Your task to perform on an android device: see tabs open on other devices in the chrome app Image 0: 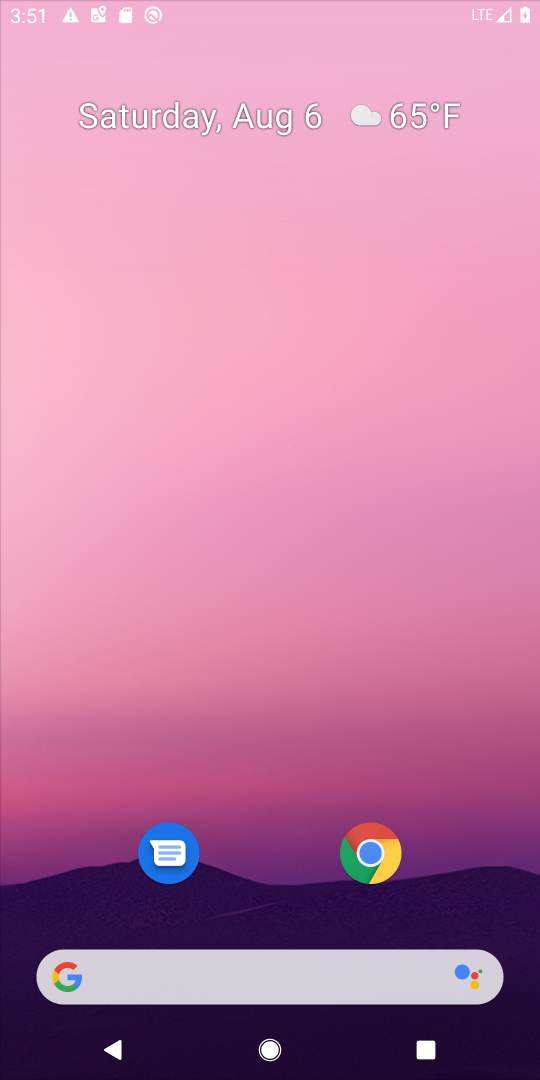
Step 0: press back button
Your task to perform on an android device: see tabs open on other devices in the chrome app Image 1: 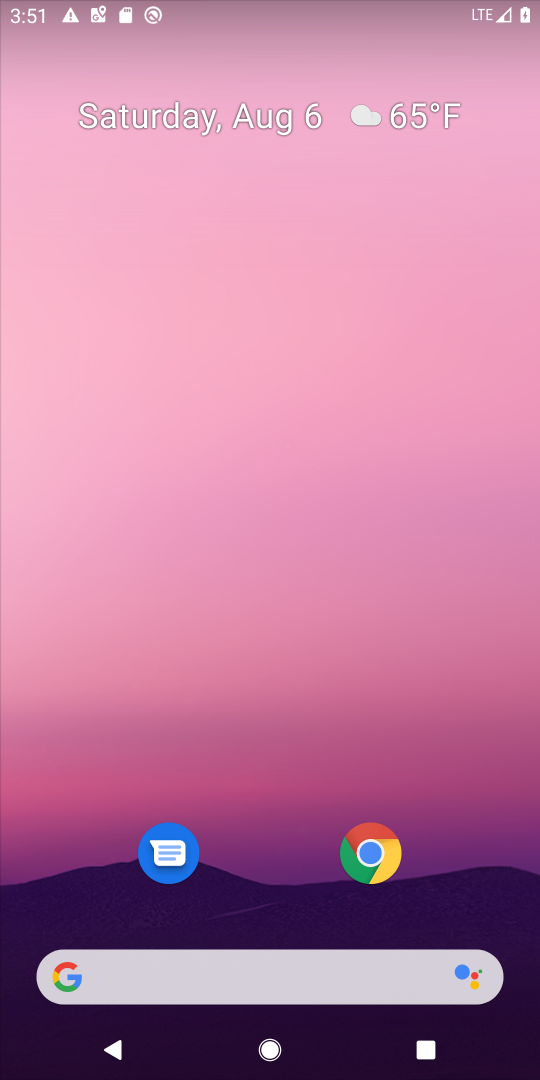
Step 1: click (372, 857)
Your task to perform on an android device: see tabs open on other devices in the chrome app Image 2: 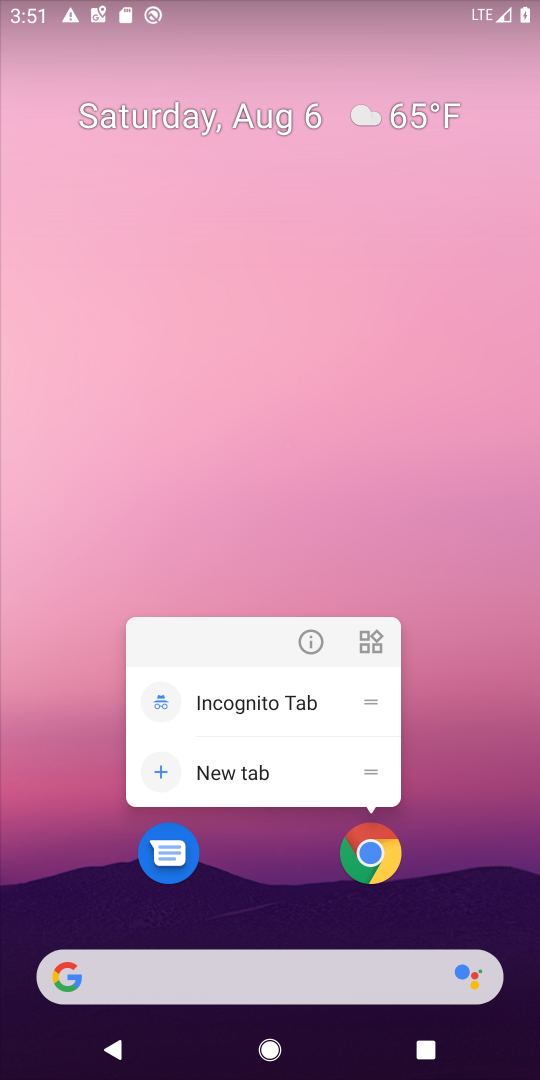
Step 2: click (372, 848)
Your task to perform on an android device: see tabs open on other devices in the chrome app Image 3: 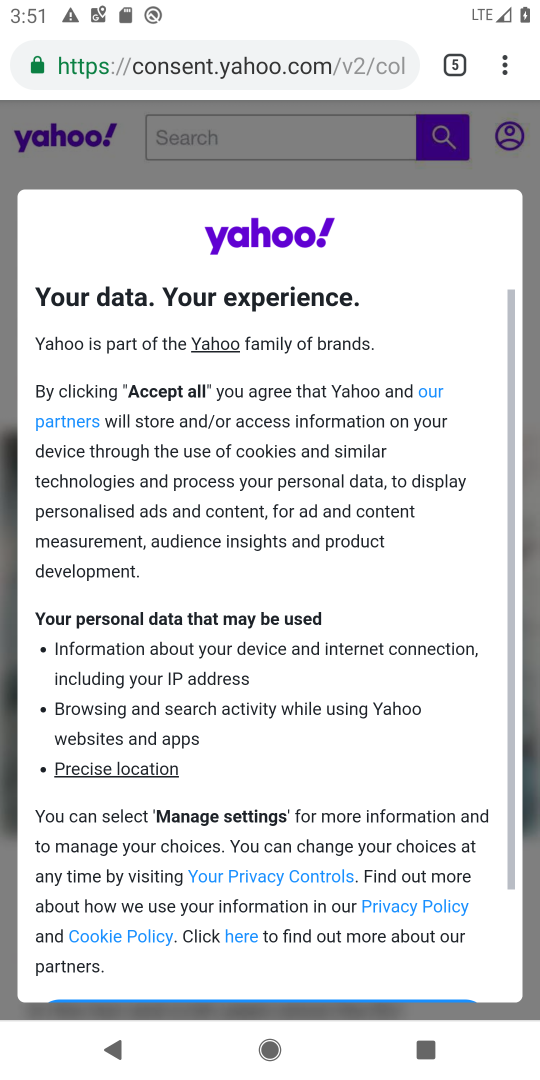
Step 3: task complete